Your task to perform on an android device: turn pop-ups off in chrome Image 0: 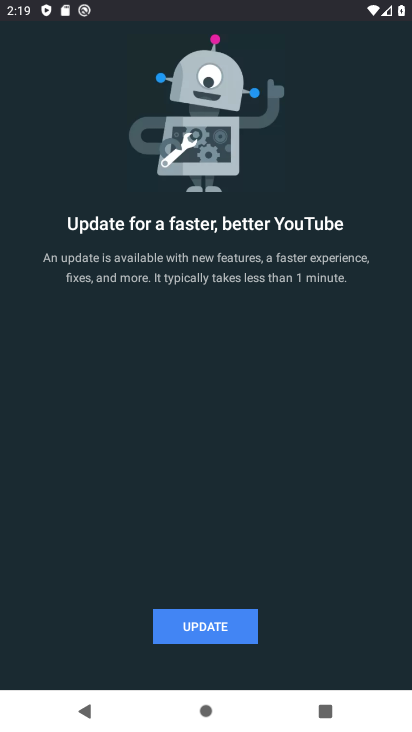
Step 0: press back button
Your task to perform on an android device: turn pop-ups off in chrome Image 1: 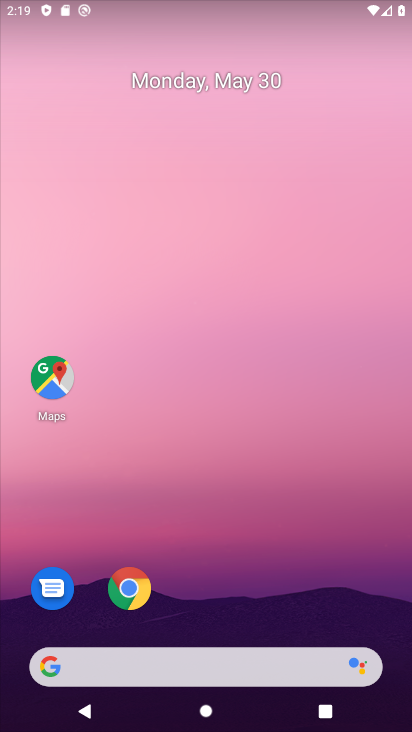
Step 1: drag from (191, 568) to (143, 152)
Your task to perform on an android device: turn pop-ups off in chrome Image 2: 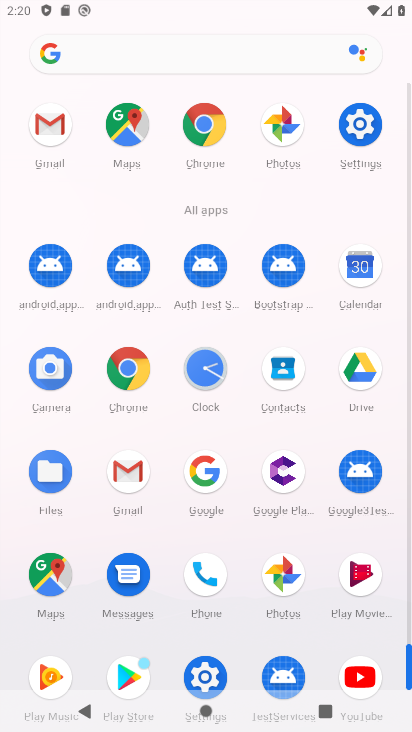
Step 2: click (114, 355)
Your task to perform on an android device: turn pop-ups off in chrome Image 3: 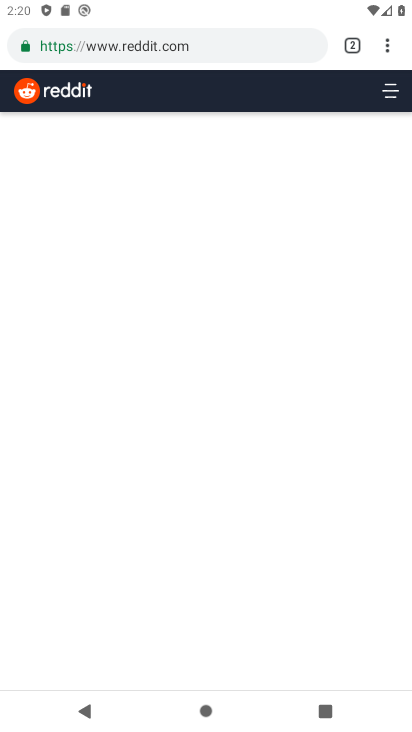
Step 3: click (390, 42)
Your task to perform on an android device: turn pop-ups off in chrome Image 4: 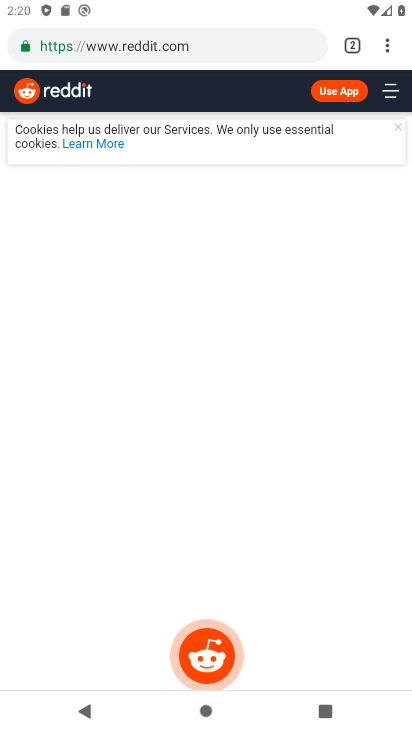
Step 4: click (390, 42)
Your task to perform on an android device: turn pop-ups off in chrome Image 5: 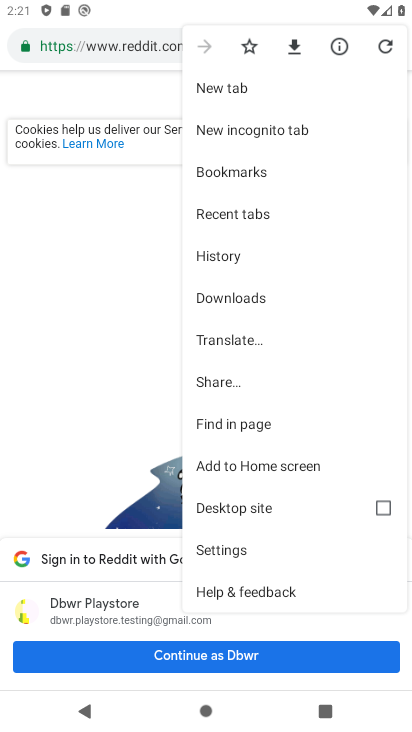
Step 5: click (223, 536)
Your task to perform on an android device: turn pop-ups off in chrome Image 6: 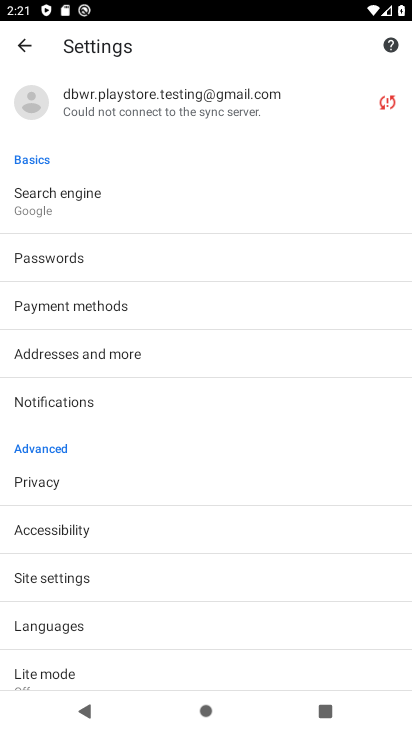
Step 6: click (85, 583)
Your task to perform on an android device: turn pop-ups off in chrome Image 7: 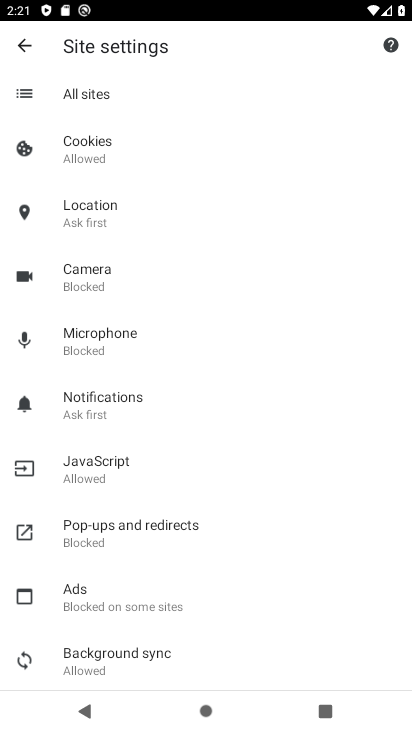
Step 7: click (149, 522)
Your task to perform on an android device: turn pop-ups off in chrome Image 8: 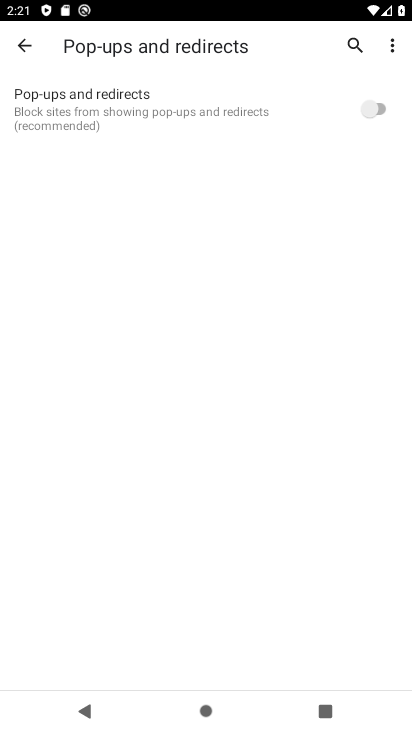
Step 8: click (380, 113)
Your task to perform on an android device: turn pop-ups off in chrome Image 9: 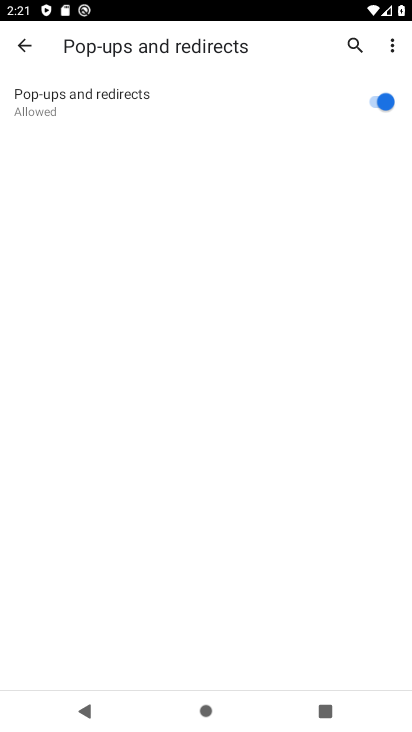
Step 9: task complete